Your task to perform on an android device: Go to Reddit.com Image 0: 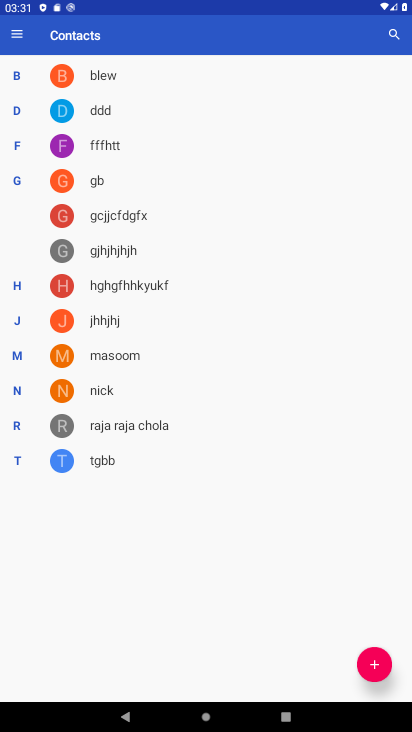
Step 0: press back button
Your task to perform on an android device: Go to Reddit.com Image 1: 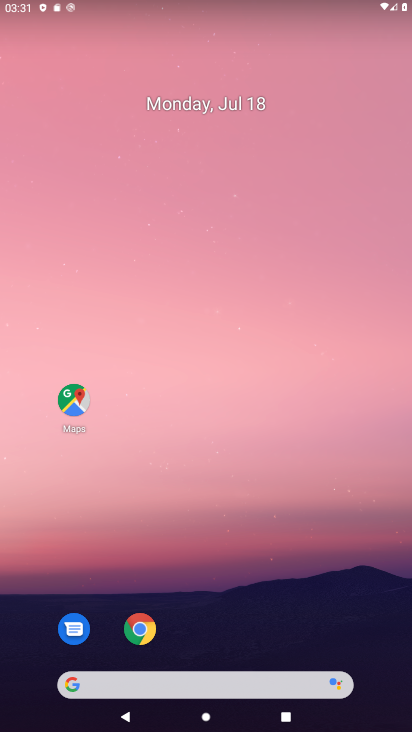
Step 1: click (140, 628)
Your task to perform on an android device: Go to Reddit.com Image 2: 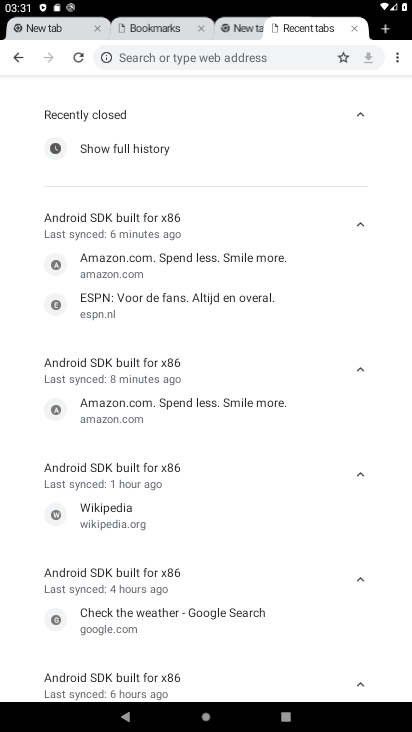
Step 2: click (189, 61)
Your task to perform on an android device: Go to Reddit.com Image 3: 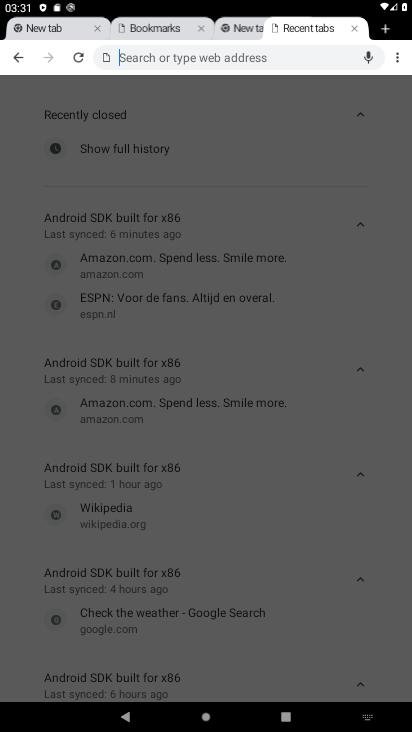
Step 3: type "Reddit.com"
Your task to perform on an android device: Go to Reddit.com Image 4: 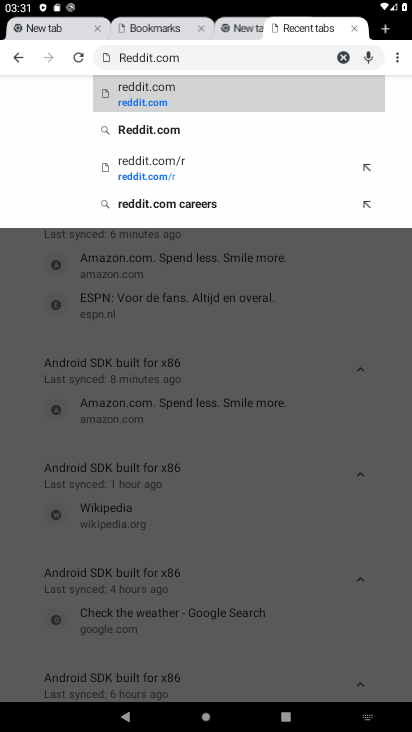
Step 4: click (153, 126)
Your task to perform on an android device: Go to Reddit.com Image 5: 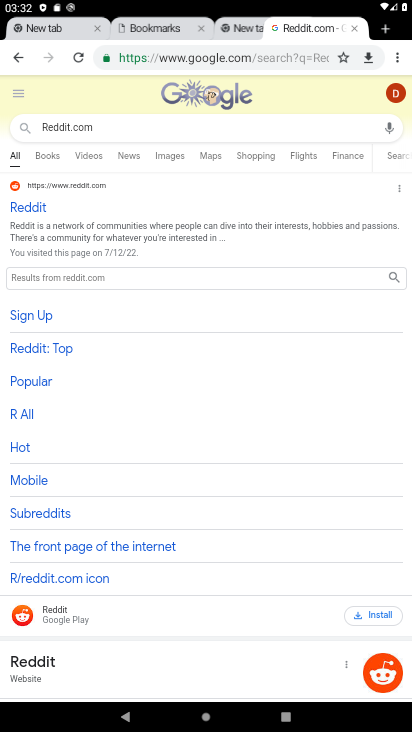
Step 5: task complete